Your task to perform on an android device: check google app version Image 0: 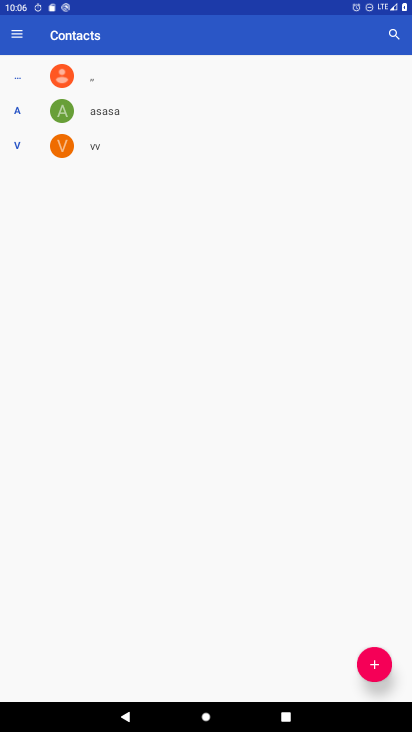
Step 0: press home button
Your task to perform on an android device: check google app version Image 1: 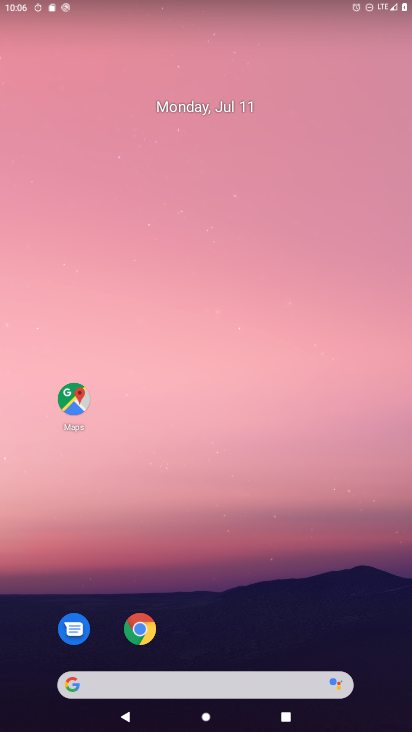
Step 1: click (101, 682)
Your task to perform on an android device: check google app version Image 2: 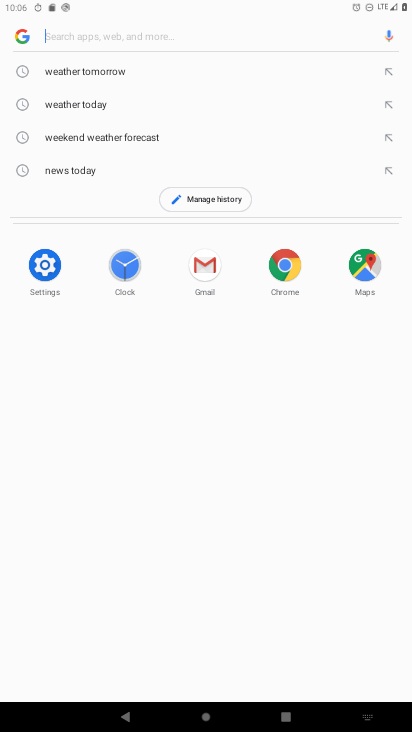
Step 2: click (19, 30)
Your task to perform on an android device: check google app version Image 3: 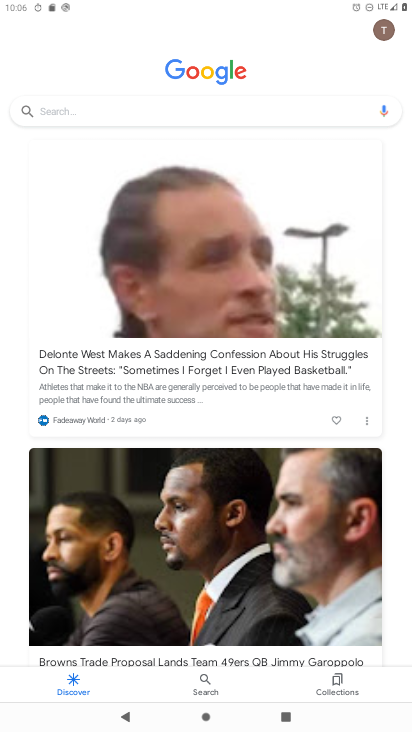
Step 3: click (383, 35)
Your task to perform on an android device: check google app version Image 4: 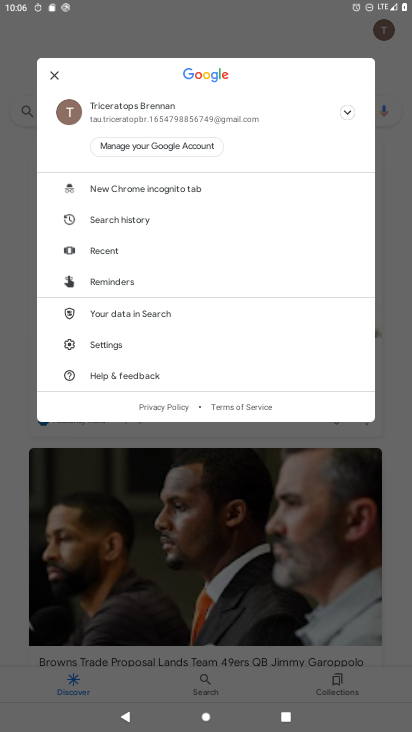
Step 4: click (133, 347)
Your task to perform on an android device: check google app version Image 5: 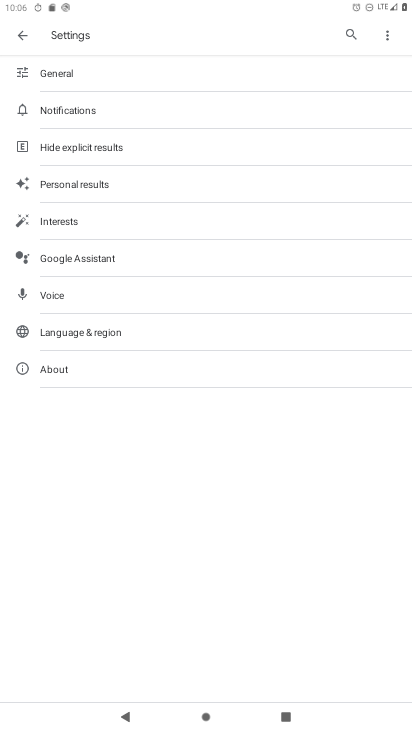
Step 5: click (95, 370)
Your task to perform on an android device: check google app version Image 6: 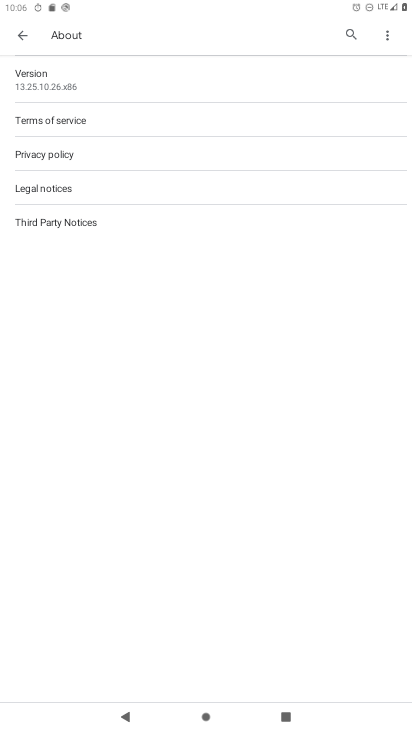
Step 6: task complete